Your task to perform on an android device: turn off notifications in google photos Image 0: 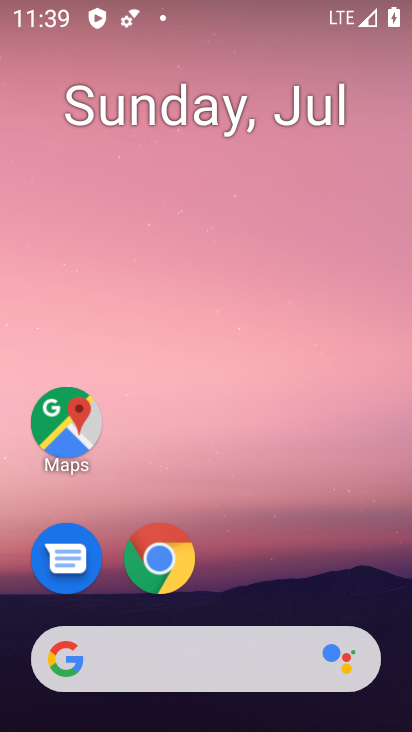
Step 0: drag from (234, 566) to (303, 2)
Your task to perform on an android device: turn off notifications in google photos Image 1: 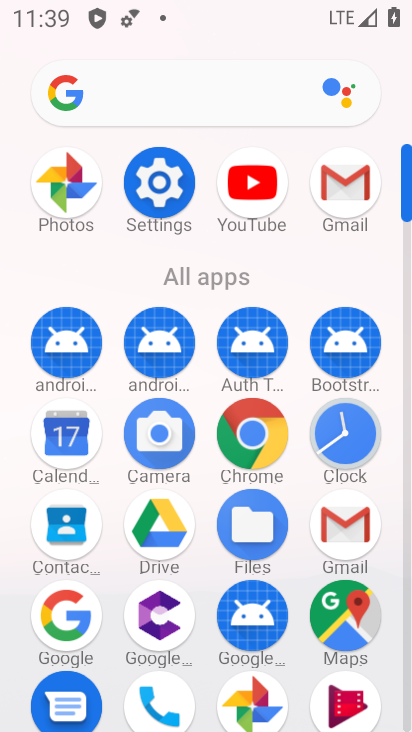
Step 1: click (50, 187)
Your task to perform on an android device: turn off notifications in google photos Image 2: 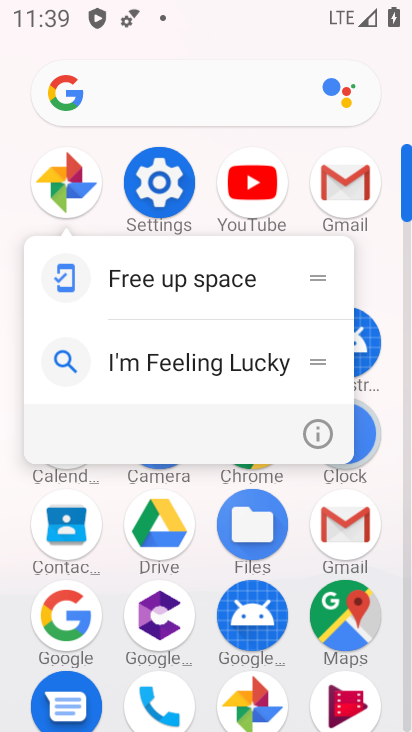
Step 2: click (323, 438)
Your task to perform on an android device: turn off notifications in google photos Image 3: 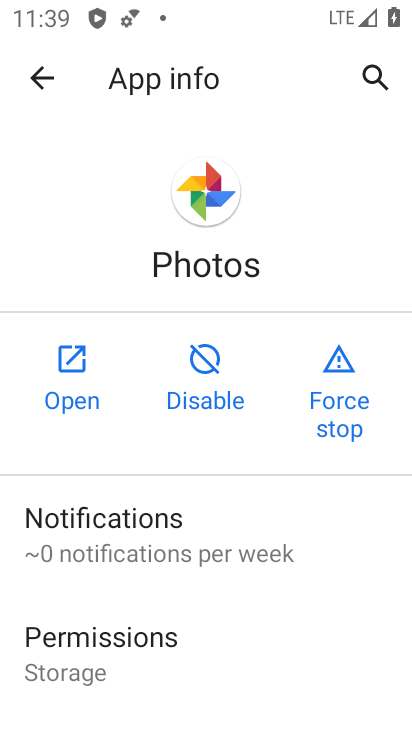
Step 3: click (100, 540)
Your task to perform on an android device: turn off notifications in google photos Image 4: 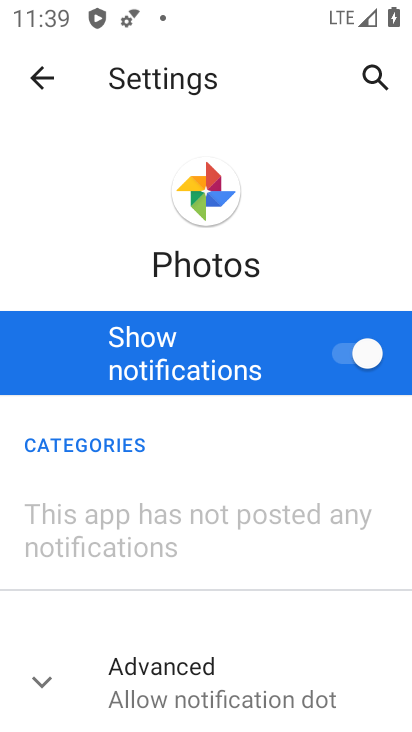
Step 4: click (358, 346)
Your task to perform on an android device: turn off notifications in google photos Image 5: 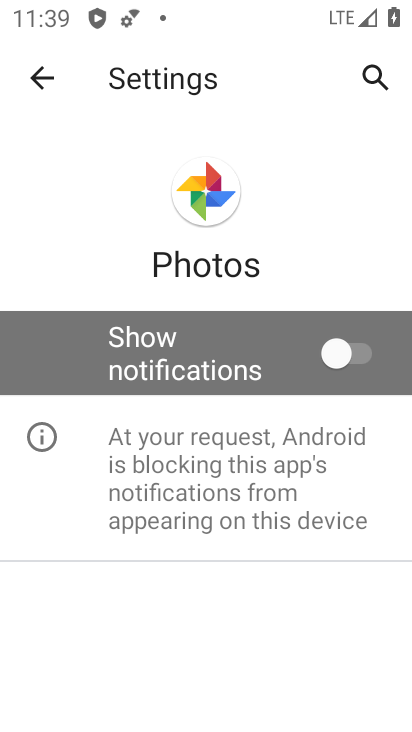
Step 5: task complete